Your task to perform on an android device: Open ESPN.com Image 0: 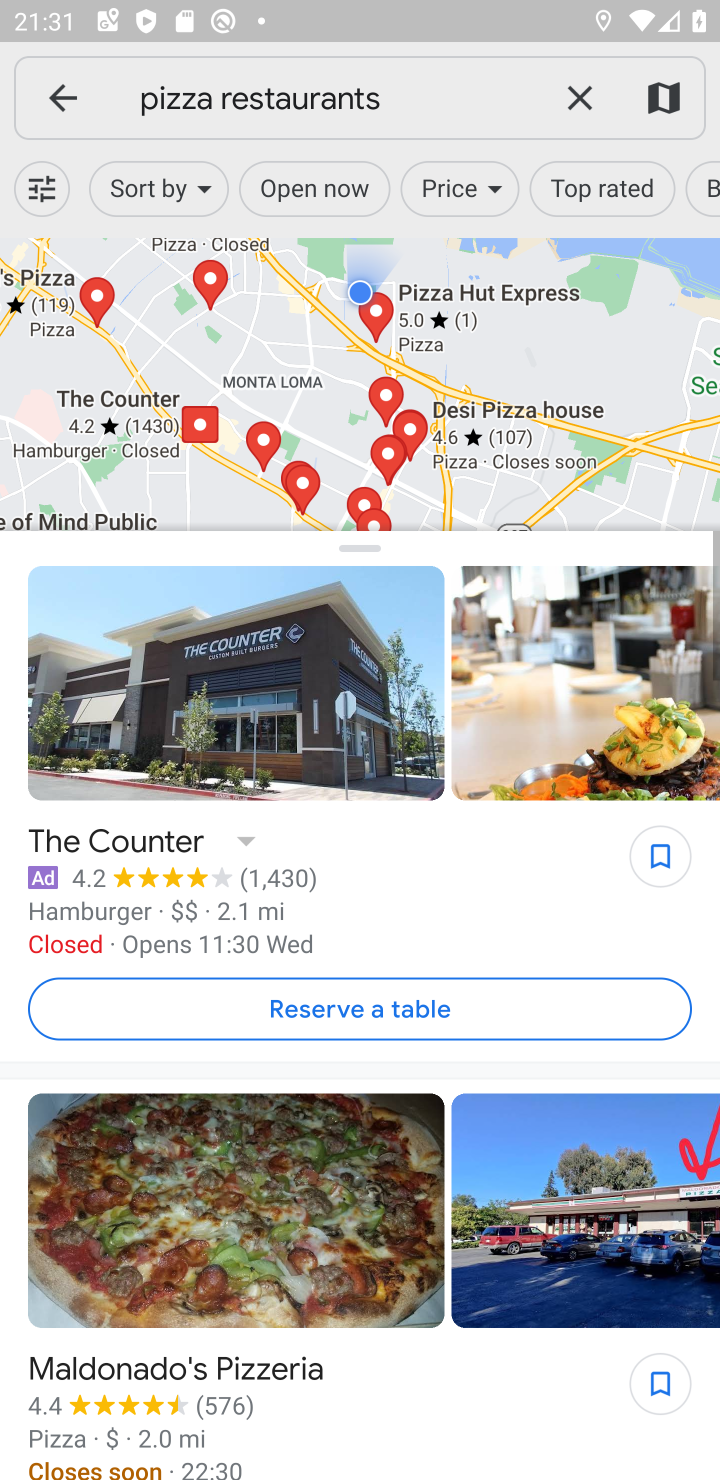
Step 0: press home button
Your task to perform on an android device: Open ESPN.com Image 1: 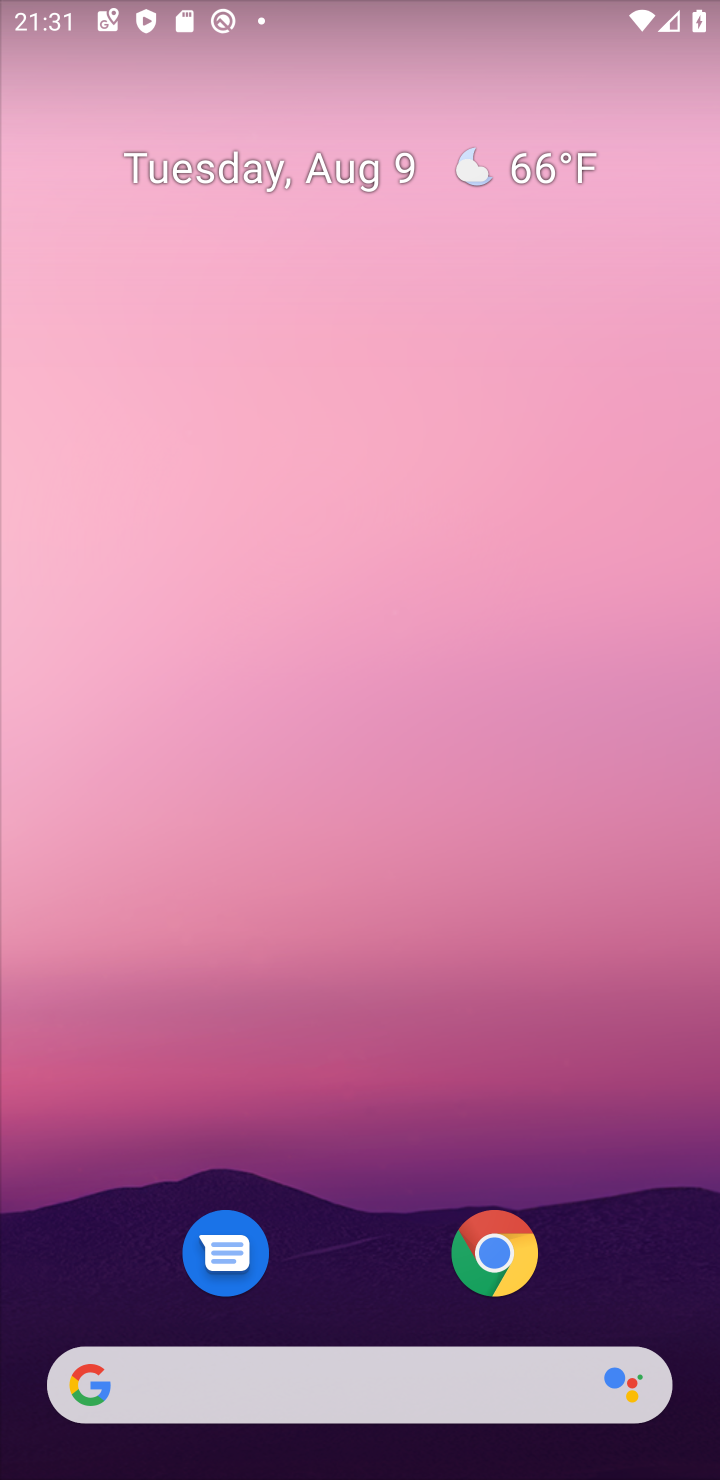
Step 1: press home button
Your task to perform on an android device: Open ESPN.com Image 2: 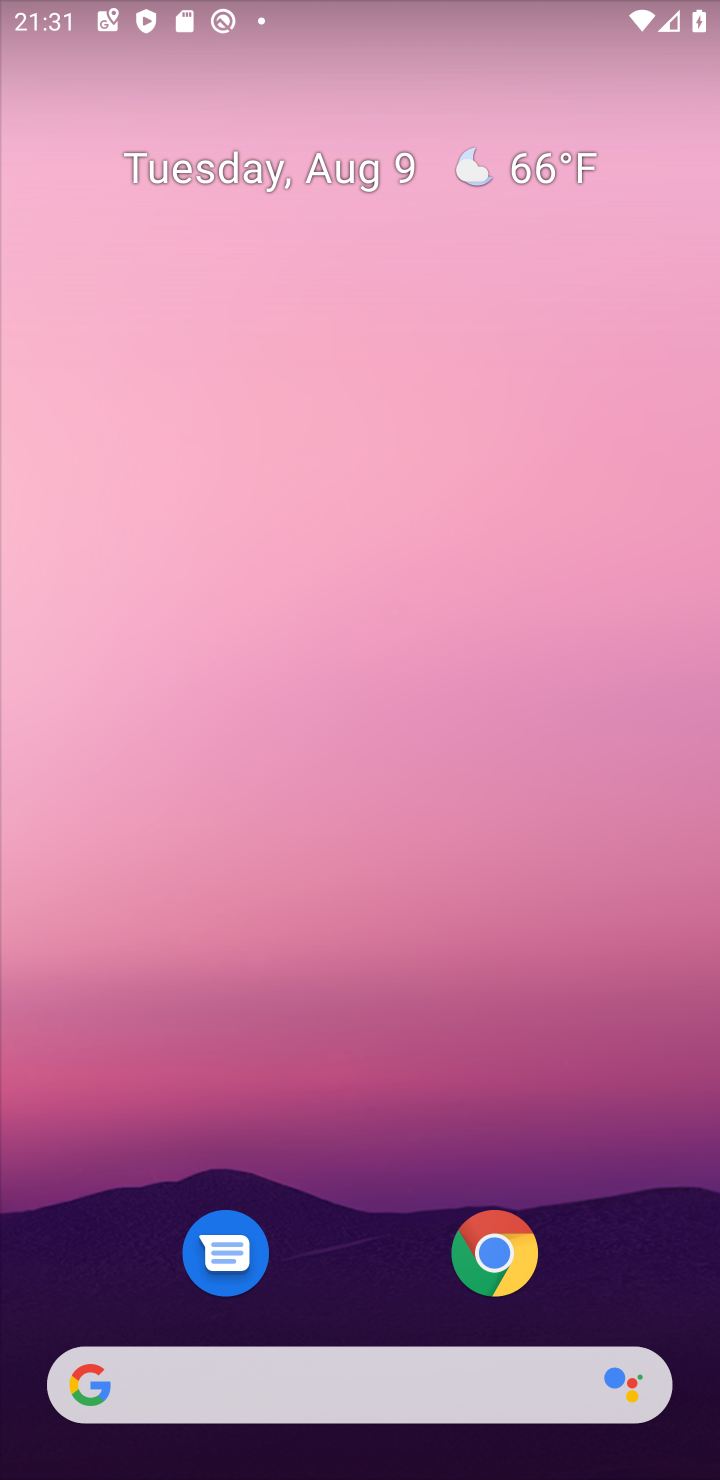
Step 2: drag from (368, 1152) to (370, 253)
Your task to perform on an android device: Open ESPN.com Image 3: 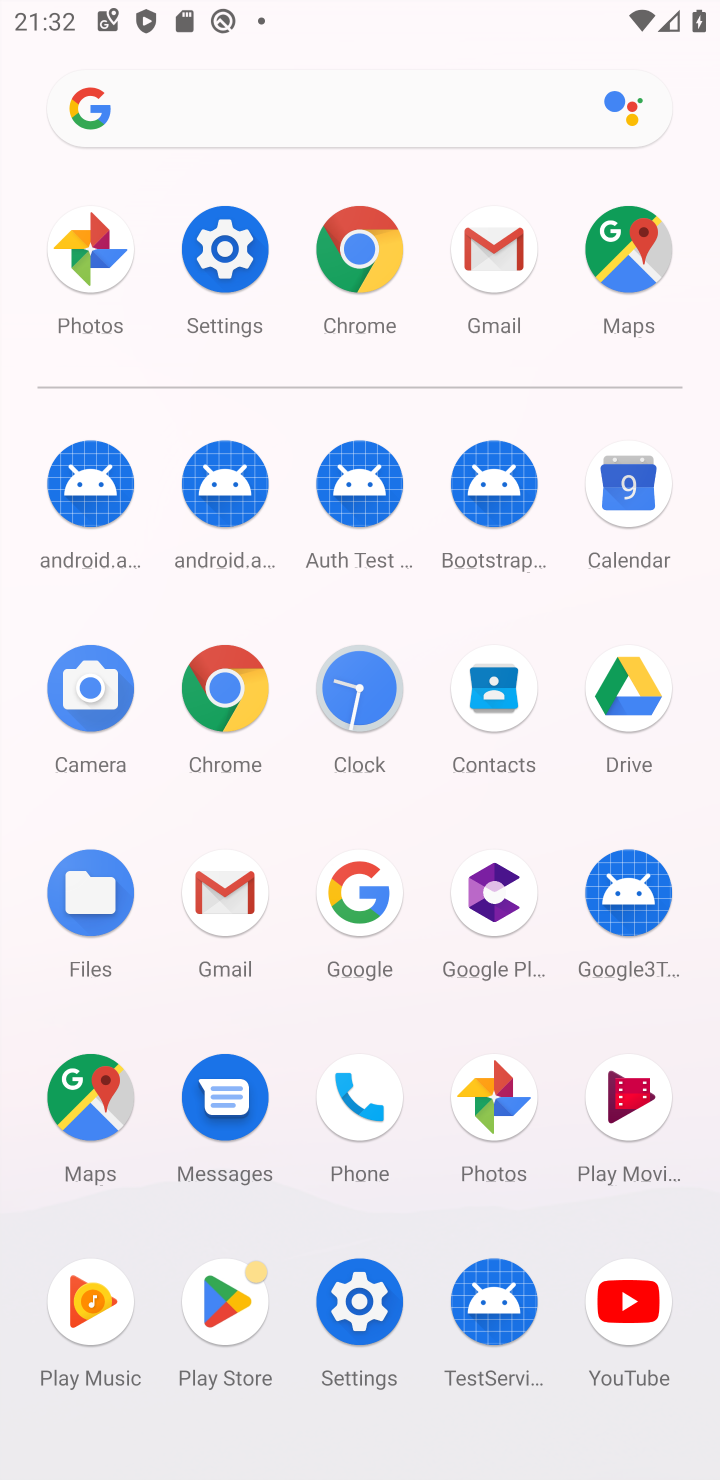
Step 3: click (223, 693)
Your task to perform on an android device: Open ESPN.com Image 4: 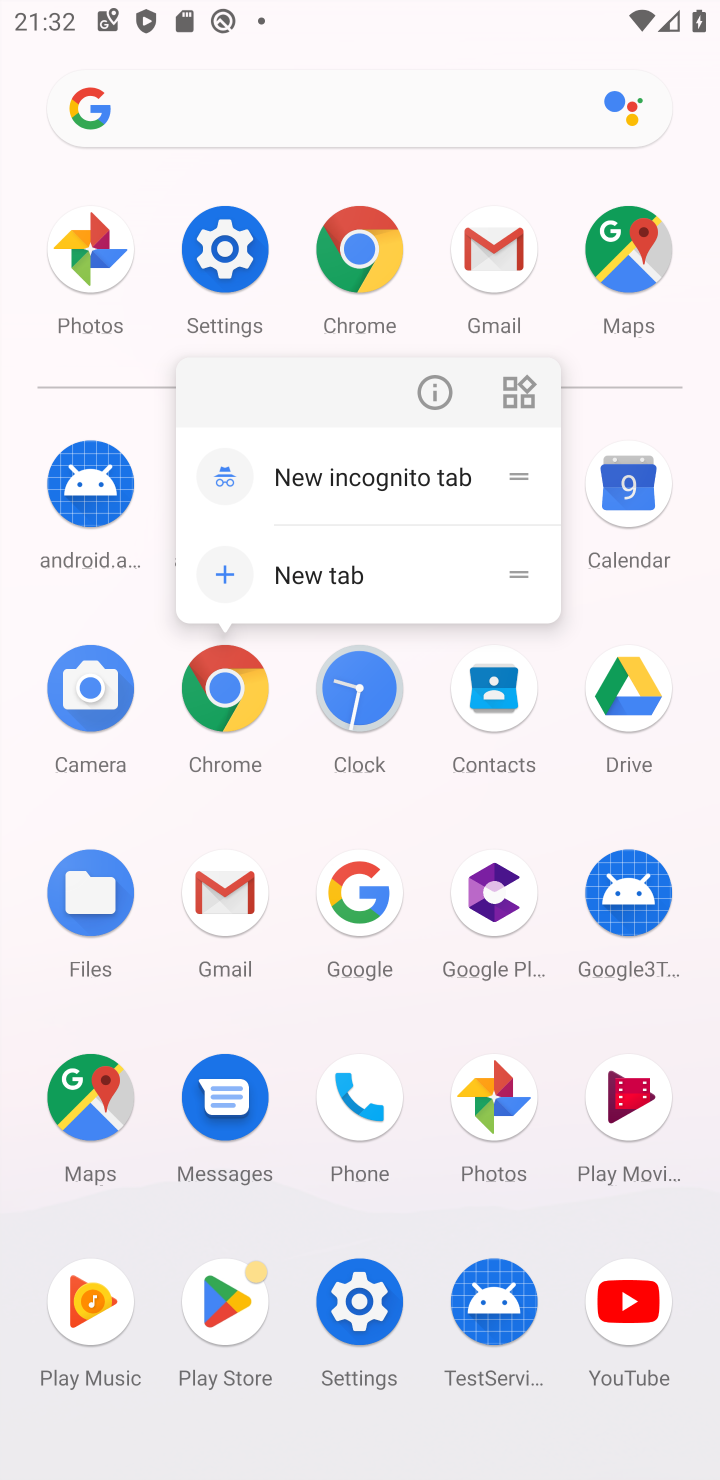
Step 4: click (223, 693)
Your task to perform on an android device: Open ESPN.com Image 5: 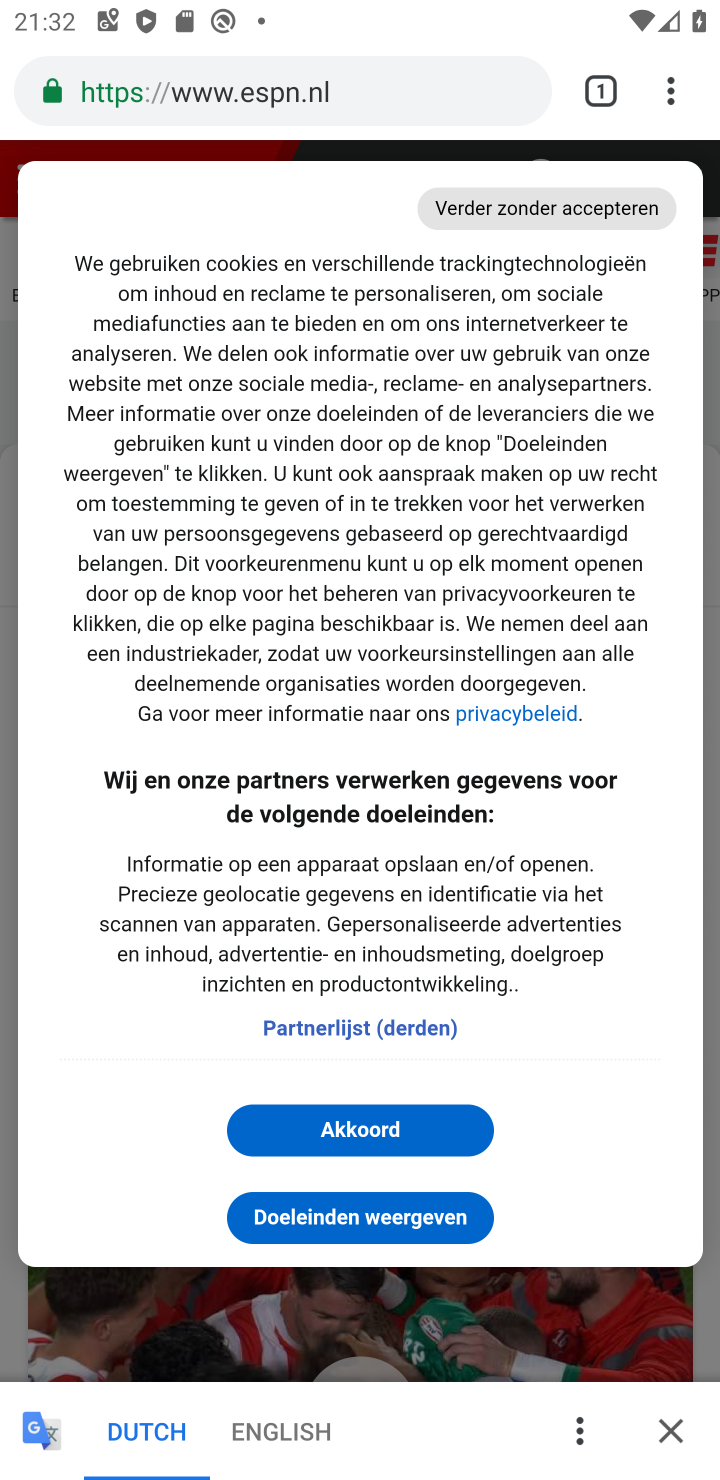
Step 5: task complete